Your task to perform on an android device: turn on priority inbox in the gmail app Image 0: 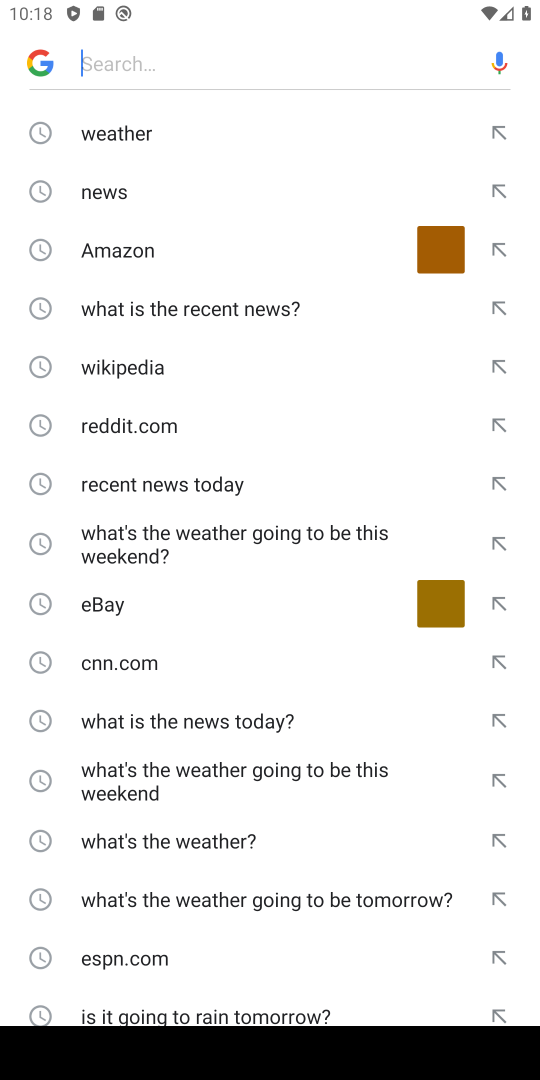
Step 0: press home button
Your task to perform on an android device: turn on priority inbox in the gmail app Image 1: 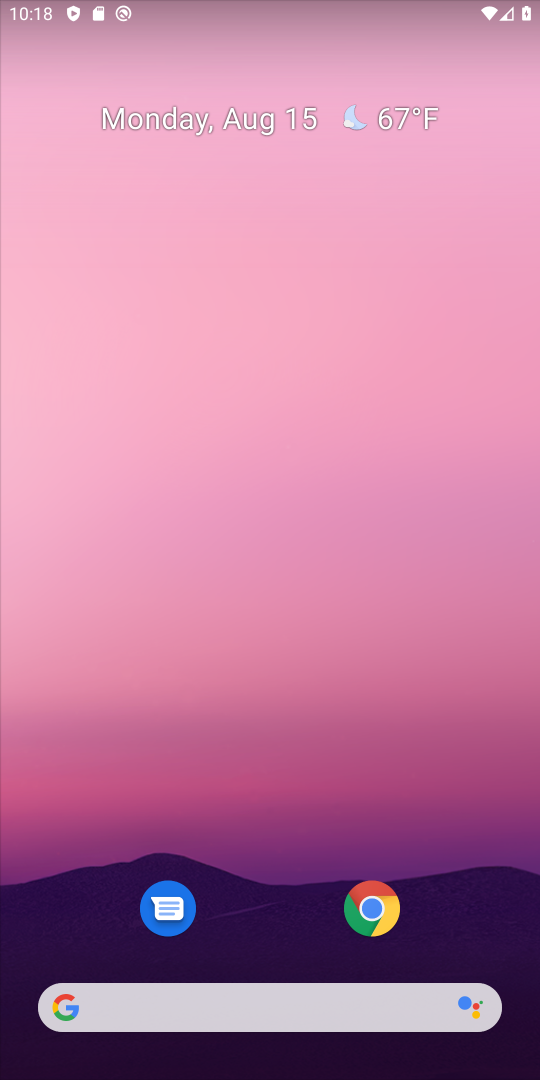
Step 1: drag from (259, 922) to (267, 65)
Your task to perform on an android device: turn on priority inbox in the gmail app Image 2: 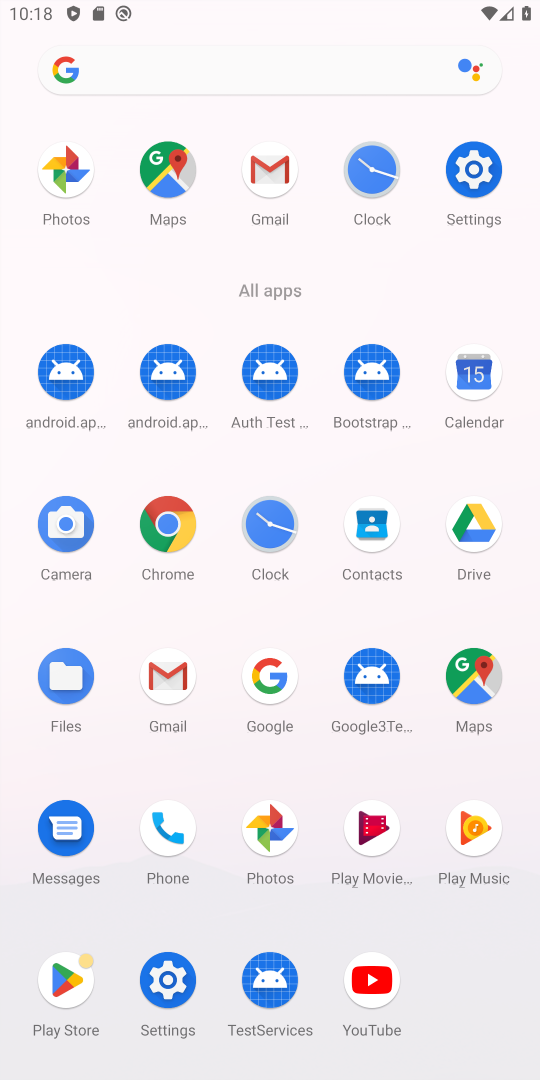
Step 2: click (256, 158)
Your task to perform on an android device: turn on priority inbox in the gmail app Image 3: 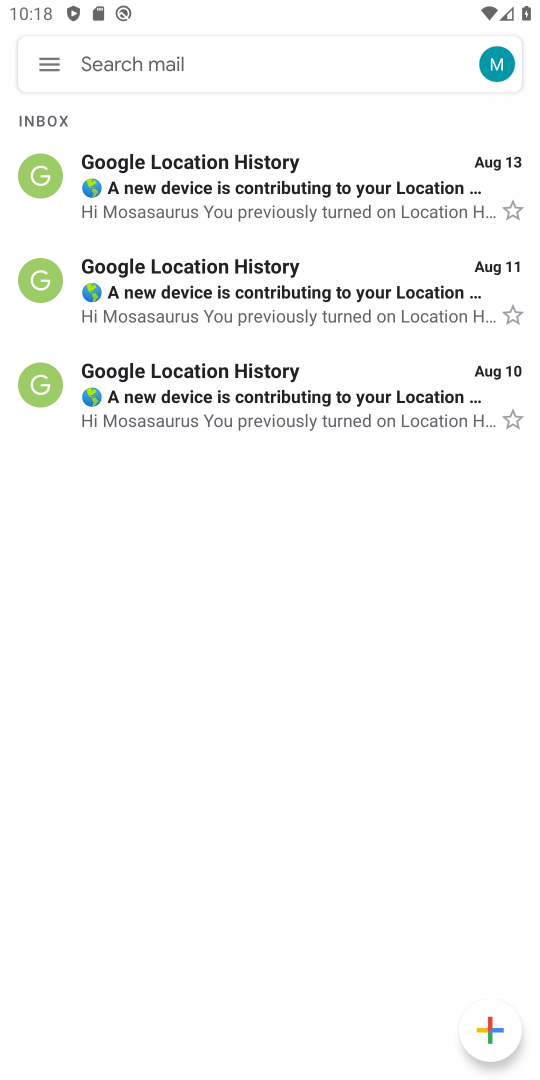
Step 3: click (41, 64)
Your task to perform on an android device: turn on priority inbox in the gmail app Image 4: 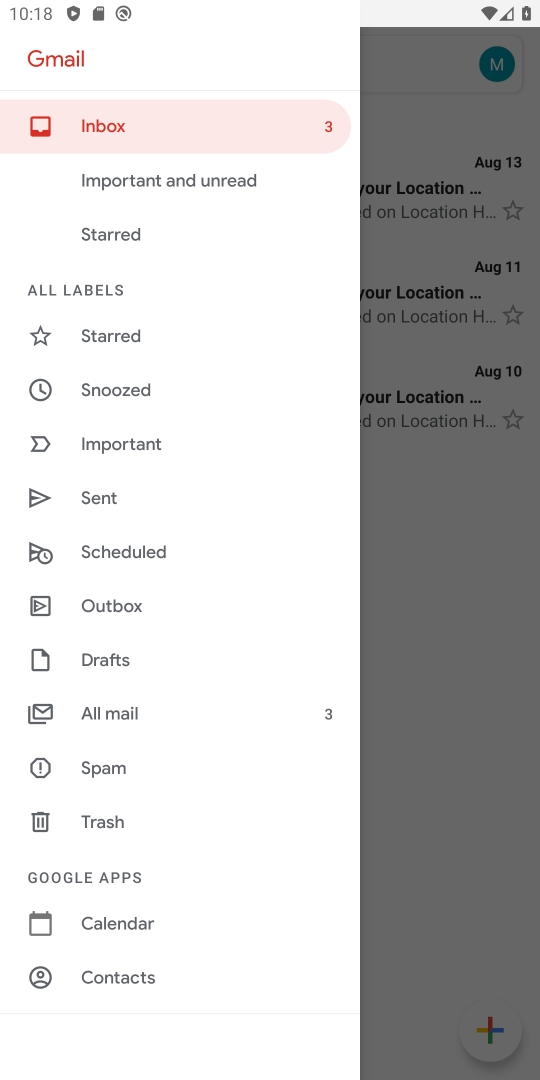
Step 4: drag from (111, 938) to (207, 315)
Your task to perform on an android device: turn on priority inbox in the gmail app Image 5: 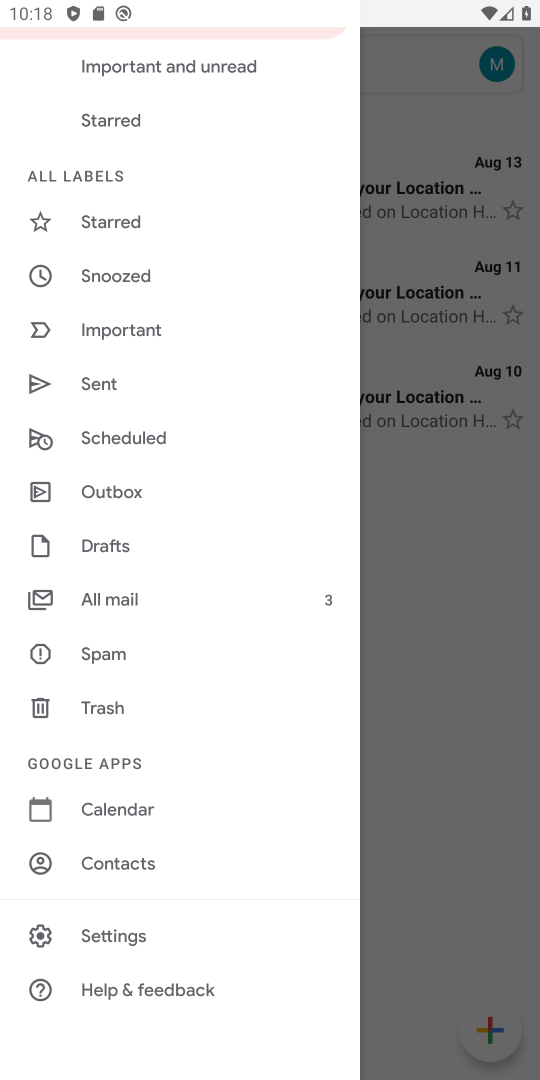
Step 5: click (132, 938)
Your task to perform on an android device: turn on priority inbox in the gmail app Image 6: 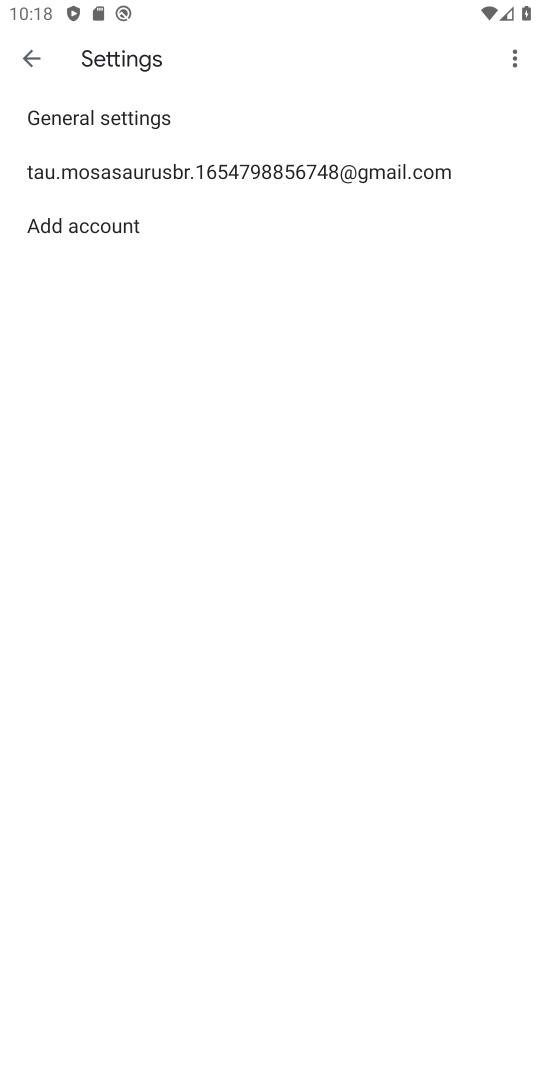
Step 6: click (192, 183)
Your task to perform on an android device: turn on priority inbox in the gmail app Image 7: 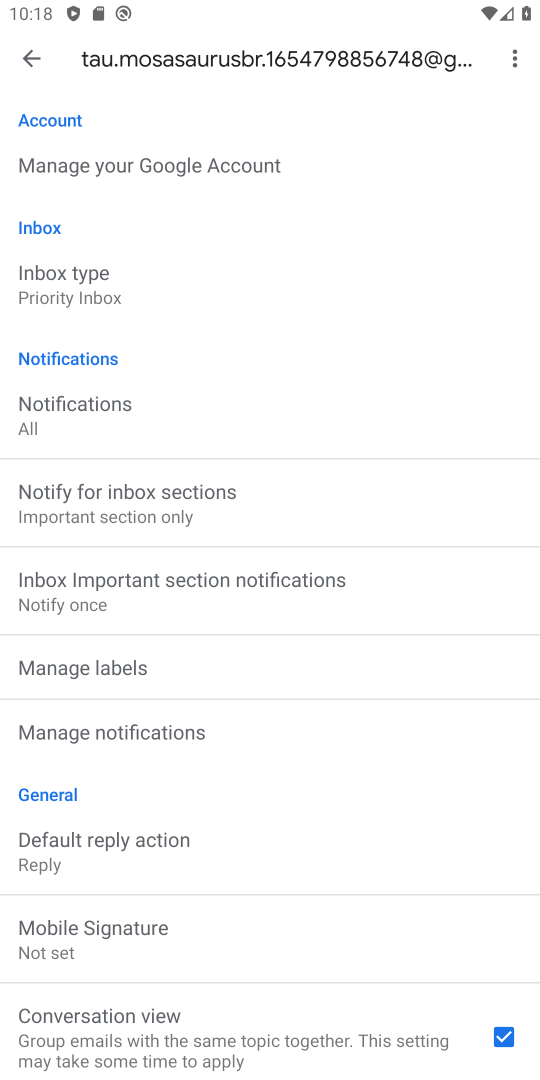
Step 7: click (210, 291)
Your task to perform on an android device: turn on priority inbox in the gmail app Image 8: 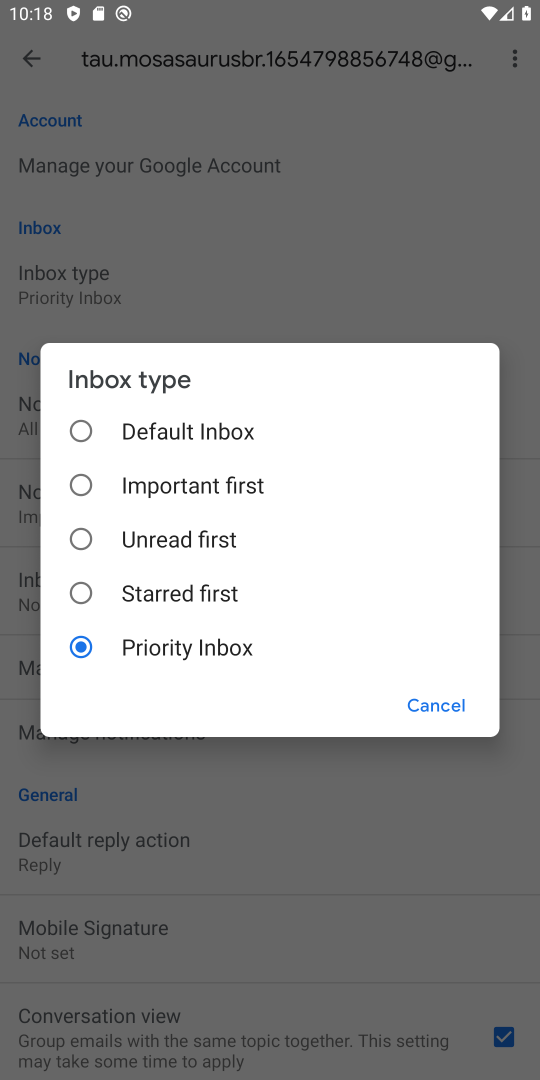
Step 8: task complete